Your task to perform on an android device: check battery use Image 0: 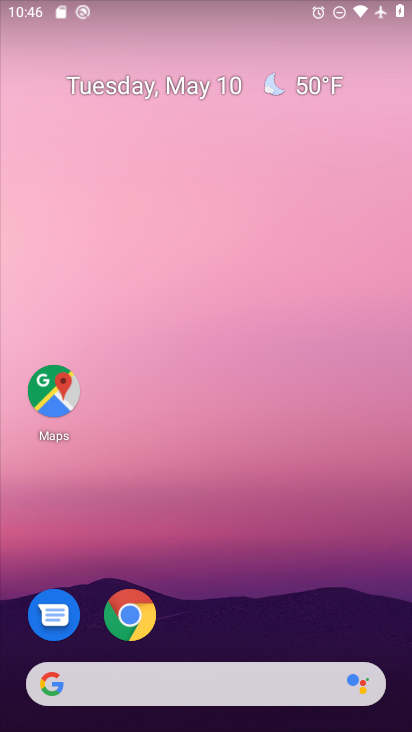
Step 0: drag from (369, 622) to (275, 61)
Your task to perform on an android device: check battery use Image 1: 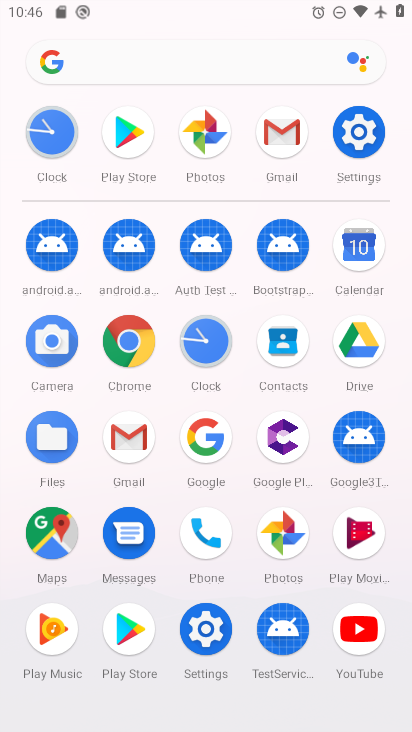
Step 1: click (207, 627)
Your task to perform on an android device: check battery use Image 2: 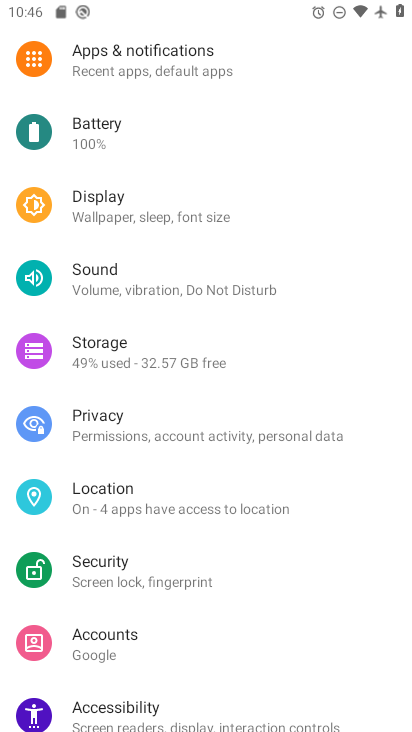
Step 2: click (85, 124)
Your task to perform on an android device: check battery use Image 3: 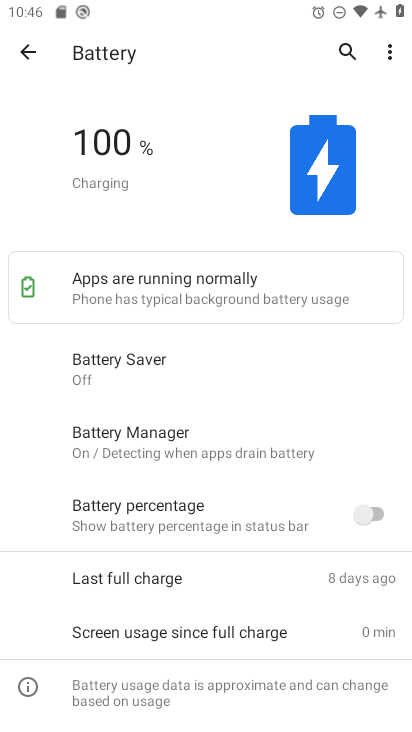
Step 3: task complete